Your task to perform on an android device: Turn on the flashlight Image 0: 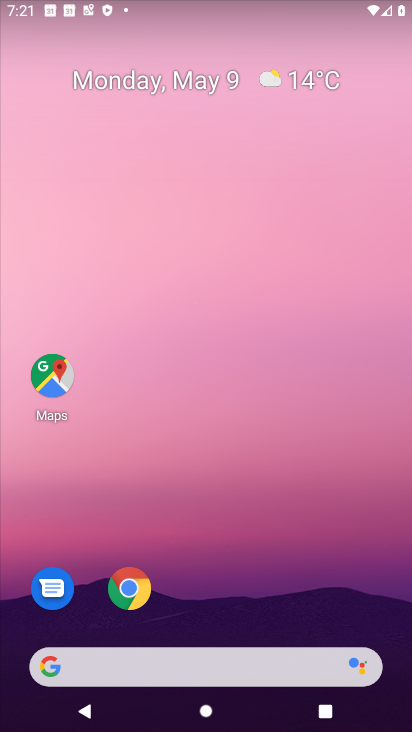
Step 0: drag from (336, 570) to (231, 57)
Your task to perform on an android device: Turn on the flashlight Image 1: 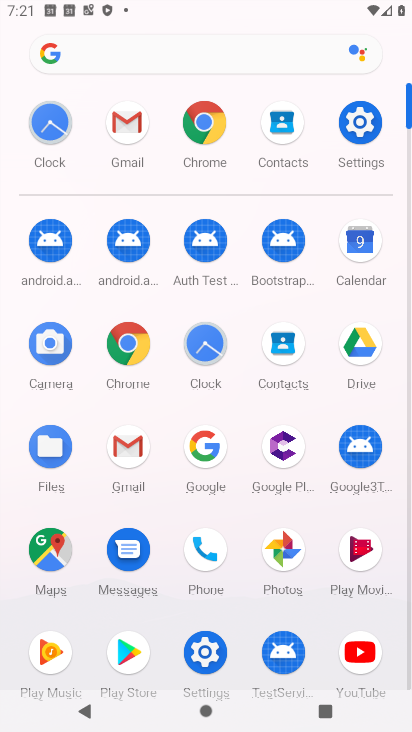
Step 1: click (358, 130)
Your task to perform on an android device: Turn on the flashlight Image 2: 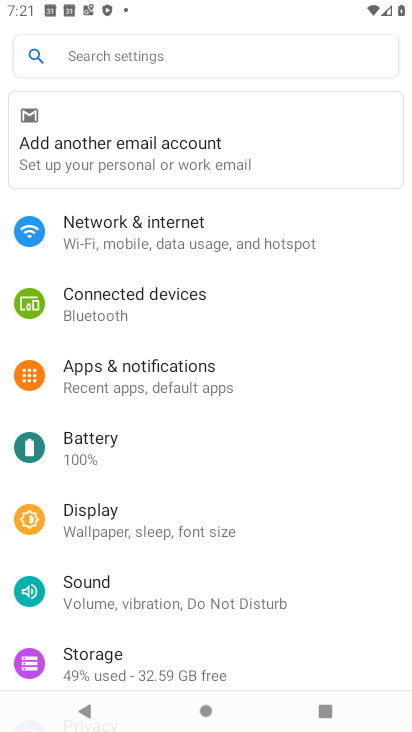
Step 2: task complete